Your task to perform on an android device: Go to display settings Image 0: 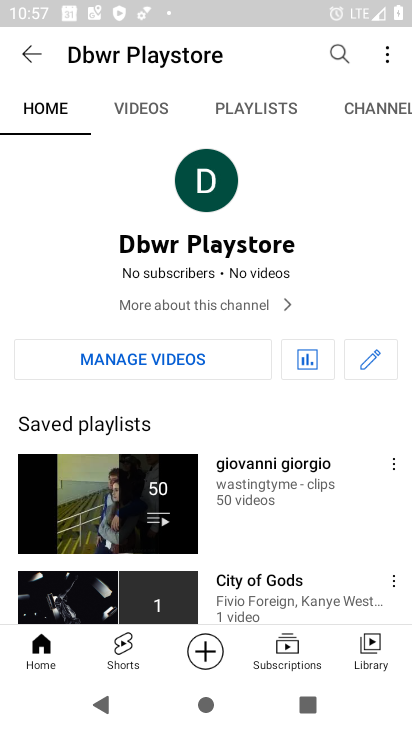
Step 0: press home button
Your task to perform on an android device: Go to display settings Image 1: 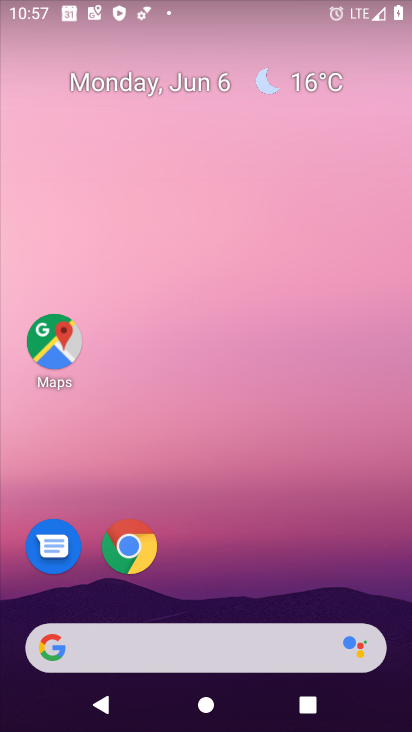
Step 1: drag from (171, 589) to (245, 89)
Your task to perform on an android device: Go to display settings Image 2: 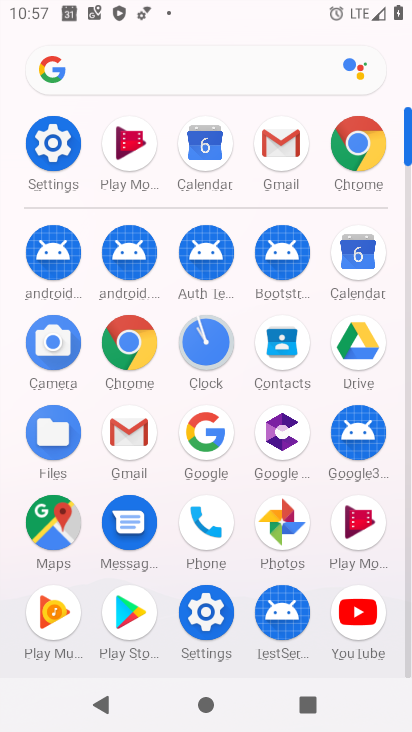
Step 2: click (55, 160)
Your task to perform on an android device: Go to display settings Image 3: 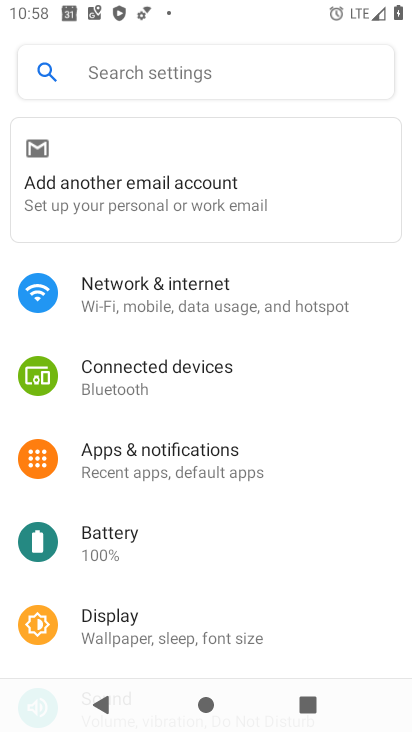
Step 3: click (133, 629)
Your task to perform on an android device: Go to display settings Image 4: 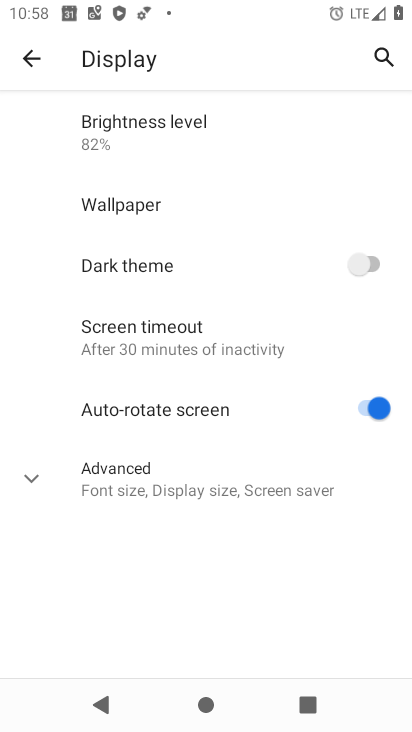
Step 4: task complete